Your task to perform on an android device: toggle translation in the chrome app Image 0: 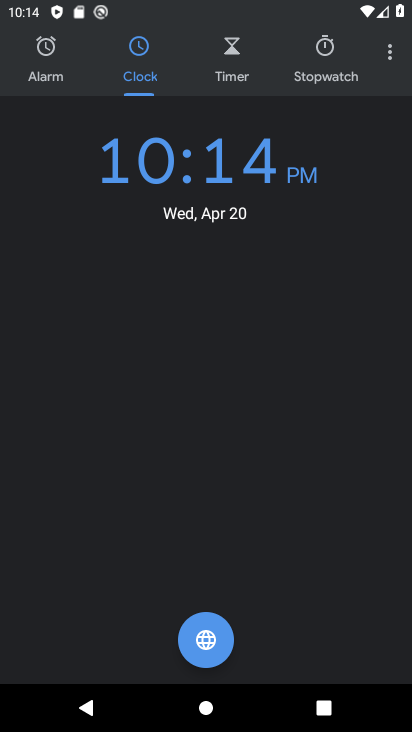
Step 0: press home button
Your task to perform on an android device: toggle translation in the chrome app Image 1: 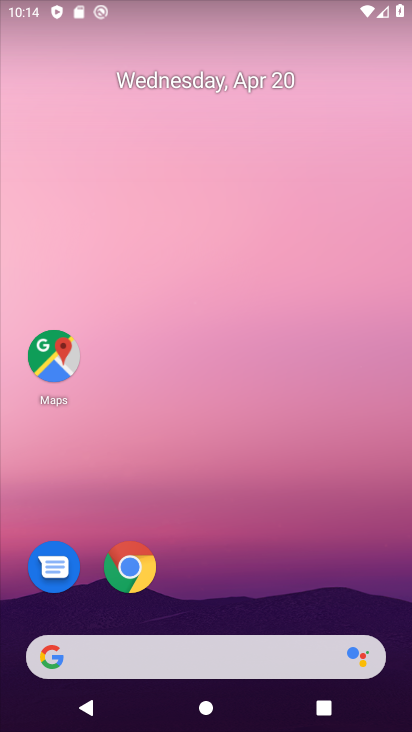
Step 1: click (131, 568)
Your task to perform on an android device: toggle translation in the chrome app Image 2: 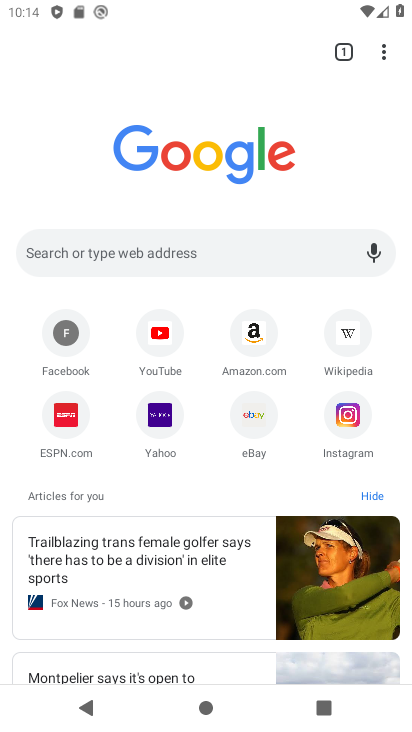
Step 2: click (387, 50)
Your task to perform on an android device: toggle translation in the chrome app Image 3: 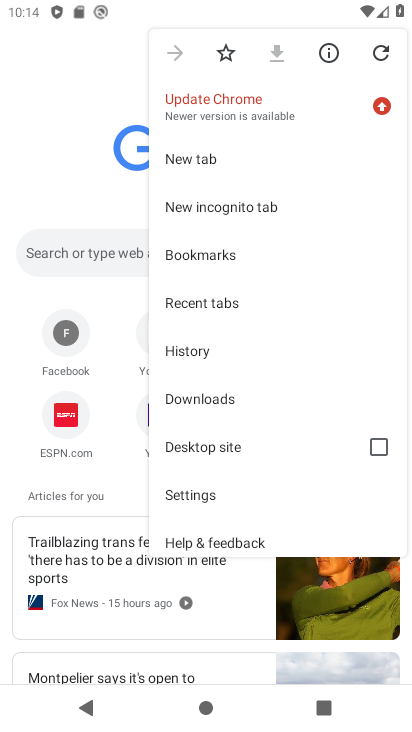
Step 3: click (206, 497)
Your task to perform on an android device: toggle translation in the chrome app Image 4: 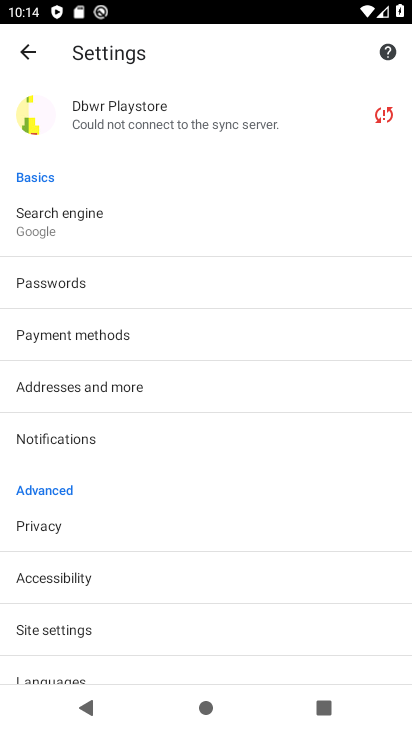
Step 4: drag from (139, 595) to (177, 528)
Your task to perform on an android device: toggle translation in the chrome app Image 5: 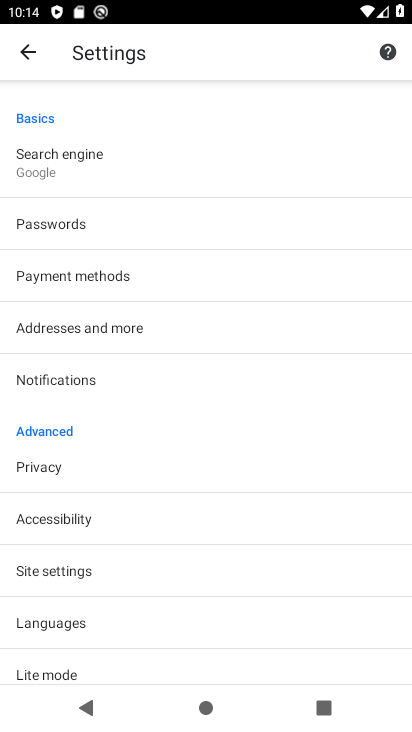
Step 5: click (64, 623)
Your task to perform on an android device: toggle translation in the chrome app Image 6: 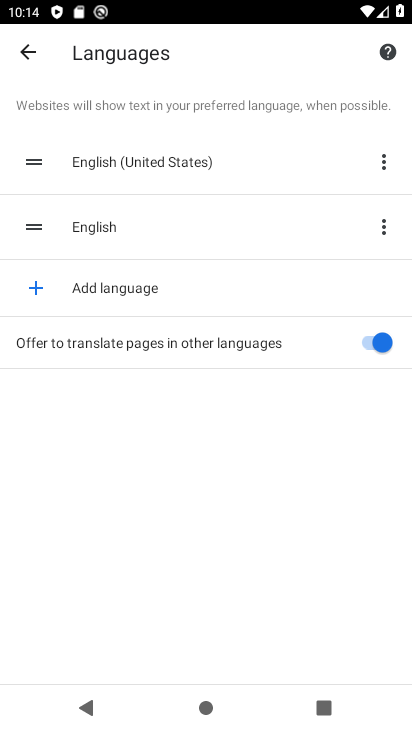
Step 6: click (390, 341)
Your task to perform on an android device: toggle translation in the chrome app Image 7: 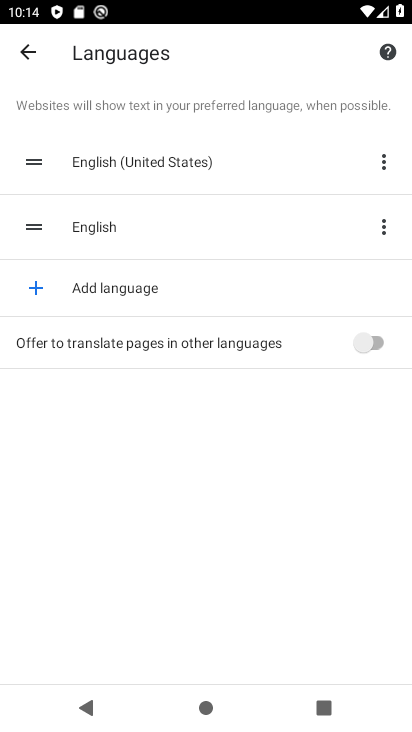
Step 7: task complete